Your task to perform on an android device: Open network settings Image 0: 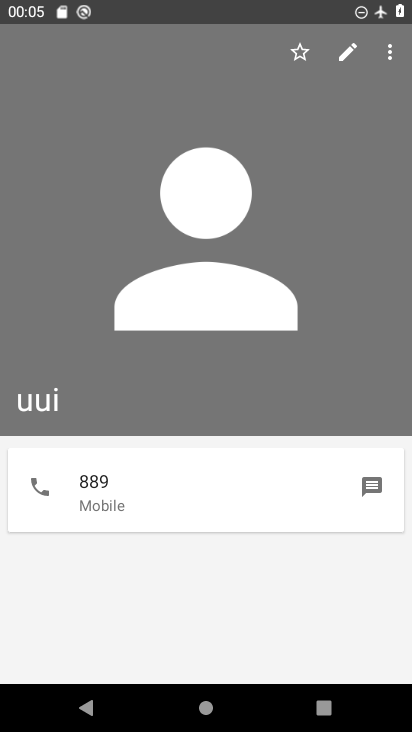
Step 0: press home button
Your task to perform on an android device: Open network settings Image 1: 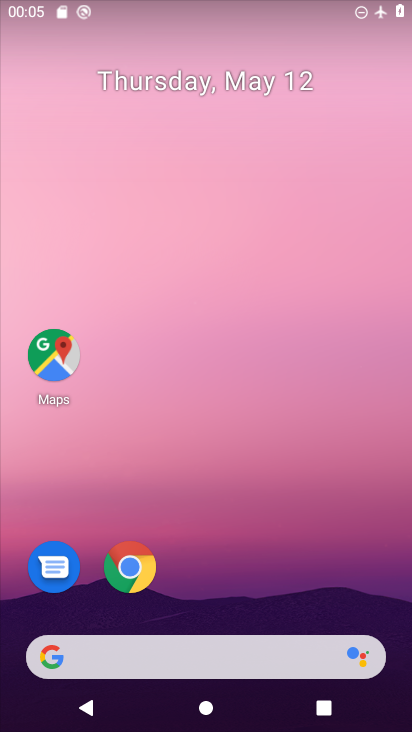
Step 1: drag from (257, 707) to (257, 46)
Your task to perform on an android device: Open network settings Image 2: 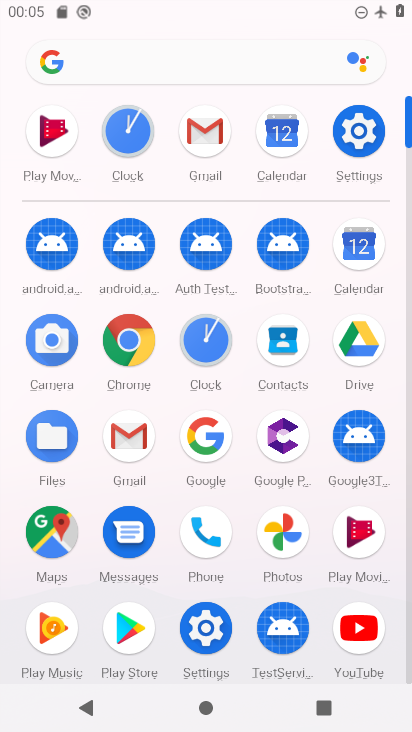
Step 2: click (349, 134)
Your task to perform on an android device: Open network settings Image 3: 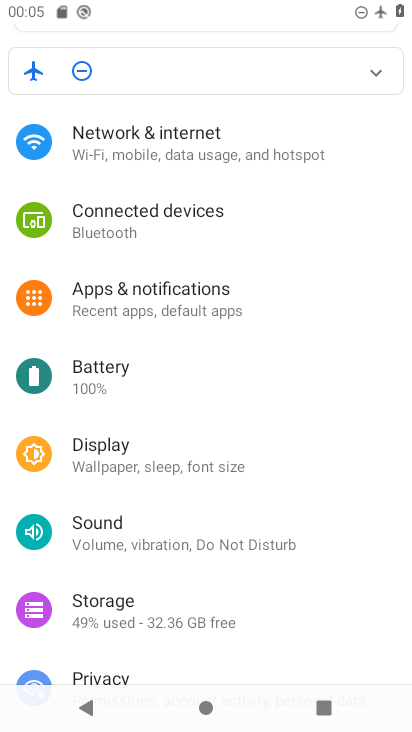
Step 3: click (195, 157)
Your task to perform on an android device: Open network settings Image 4: 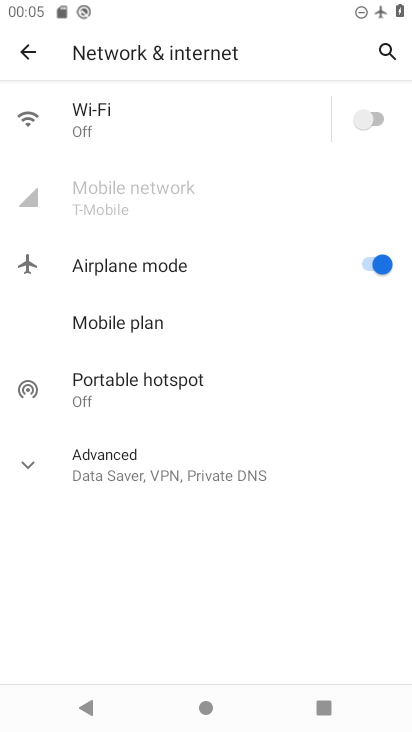
Step 4: task complete